Your task to perform on an android device: Go to location settings Image 0: 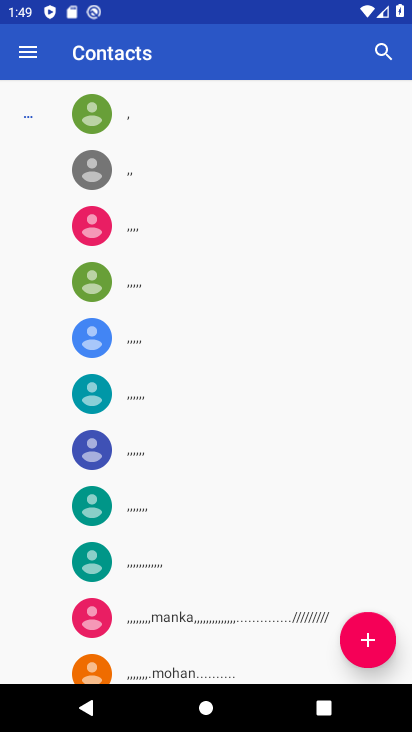
Step 0: press home button
Your task to perform on an android device: Go to location settings Image 1: 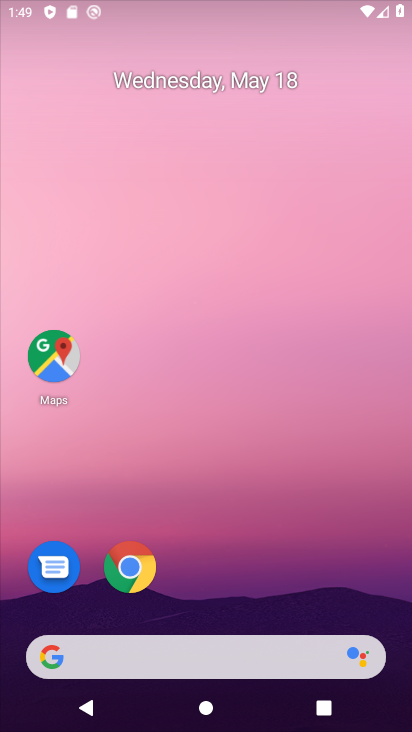
Step 1: drag from (249, 567) to (247, 179)
Your task to perform on an android device: Go to location settings Image 2: 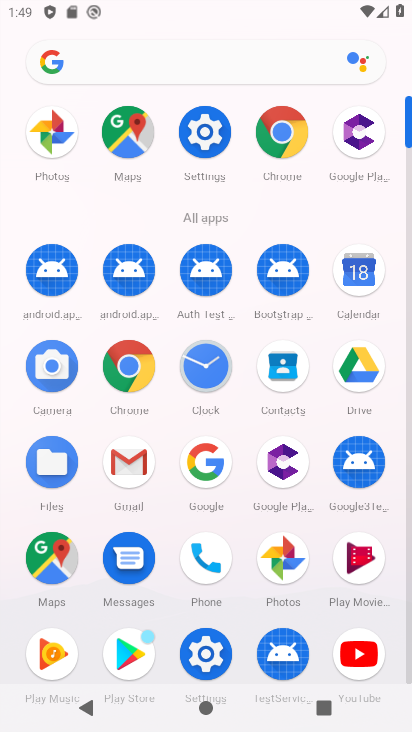
Step 2: click (201, 149)
Your task to perform on an android device: Go to location settings Image 3: 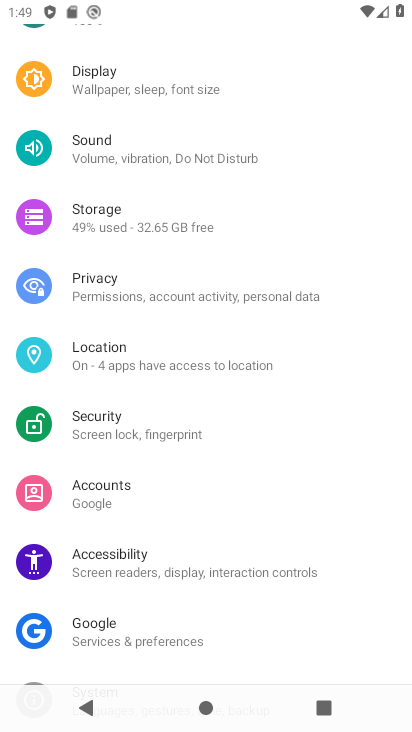
Step 3: click (121, 346)
Your task to perform on an android device: Go to location settings Image 4: 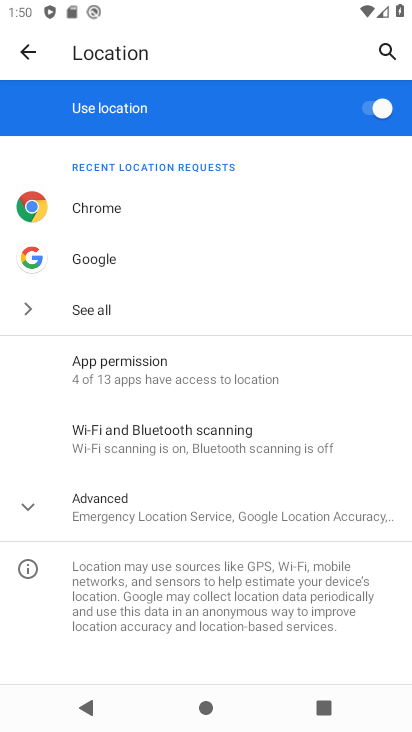
Step 4: task complete